Your task to perform on an android device: Do I have any events today? Image 0: 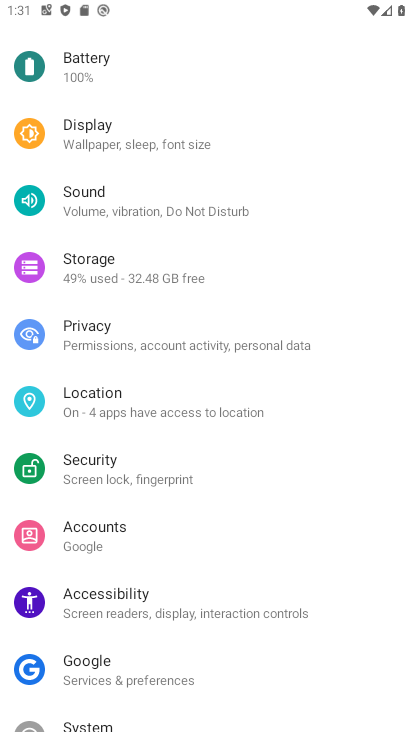
Step 0: press home button
Your task to perform on an android device: Do I have any events today? Image 1: 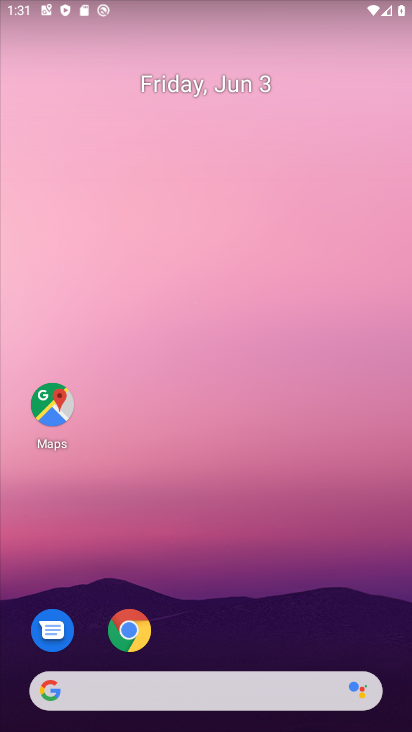
Step 1: drag from (238, 731) to (238, 140)
Your task to perform on an android device: Do I have any events today? Image 2: 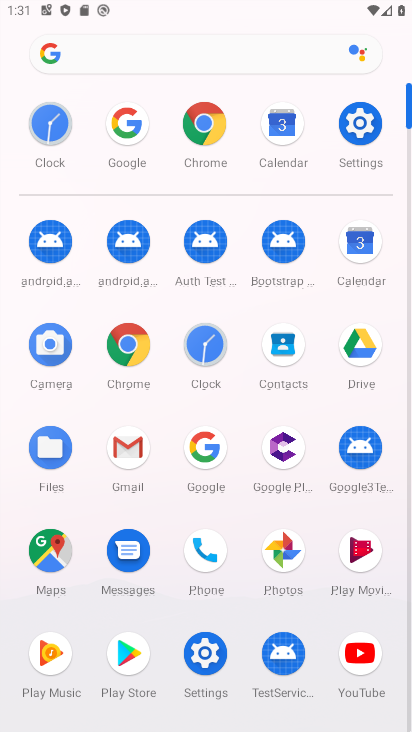
Step 2: click (354, 245)
Your task to perform on an android device: Do I have any events today? Image 3: 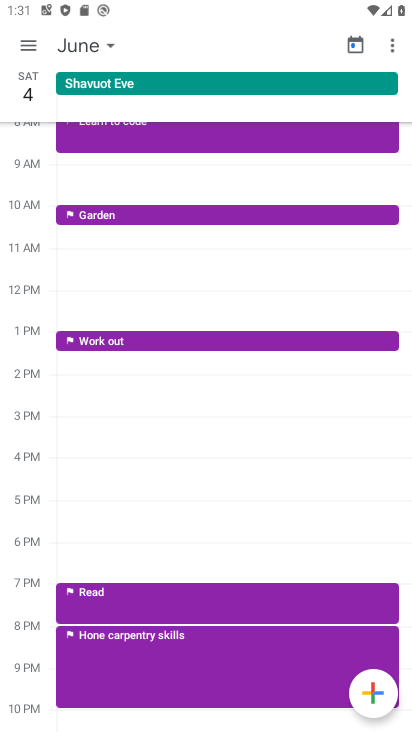
Step 3: click (117, 51)
Your task to perform on an android device: Do I have any events today? Image 4: 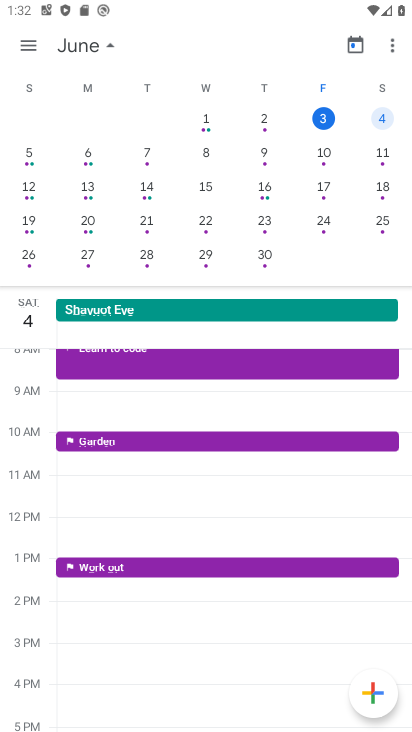
Step 4: click (327, 114)
Your task to perform on an android device: Do I have any events today? Image 5: 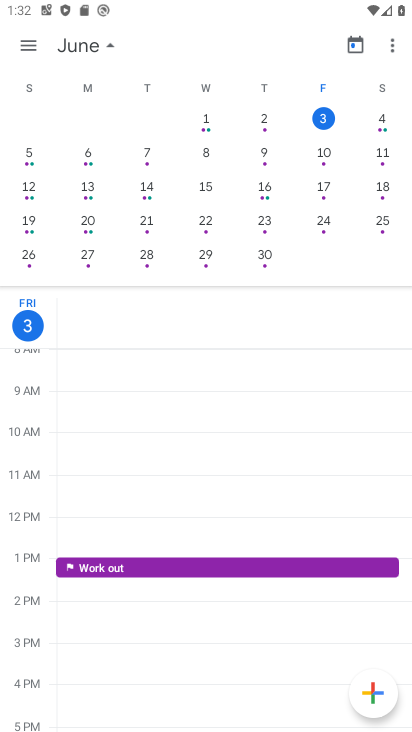
Step 5: click (34, 44)
Your task to perform on an android device: Do I have any events today? Image 6: 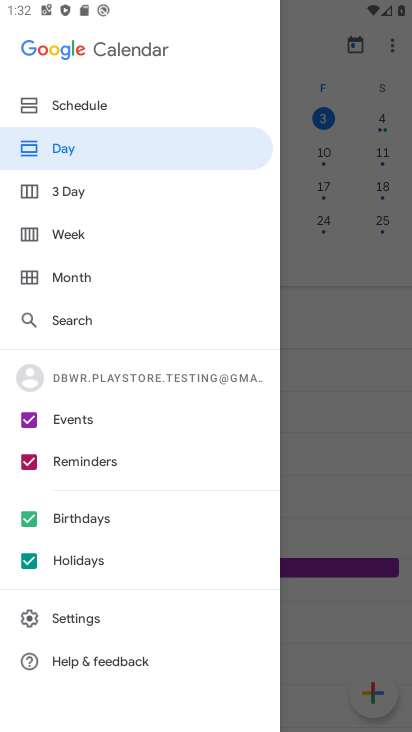
Step 6: click (26, 559)
Your task to perform on an android device: Do I have any events today? Image 7: 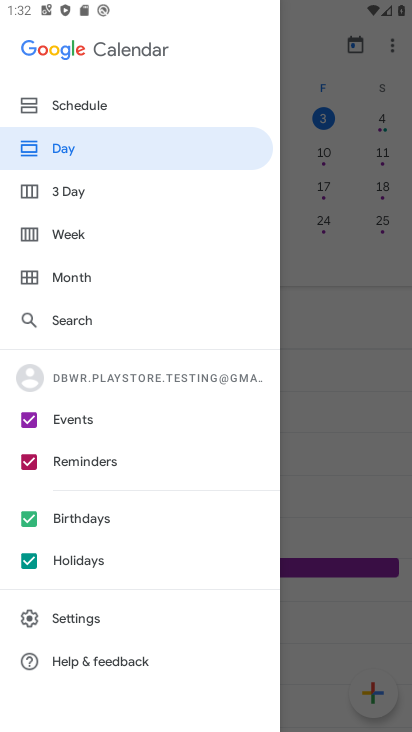
Step 7: click (35, 514)
Your task to perform on an android device: Do I have any events today? Image 8: 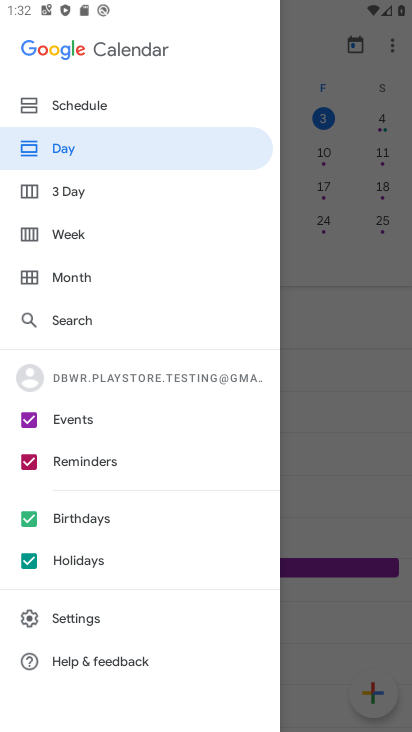
Step 8: click (27, 460)
Your task to perform on an android device: Do I have any events today? Image 9: 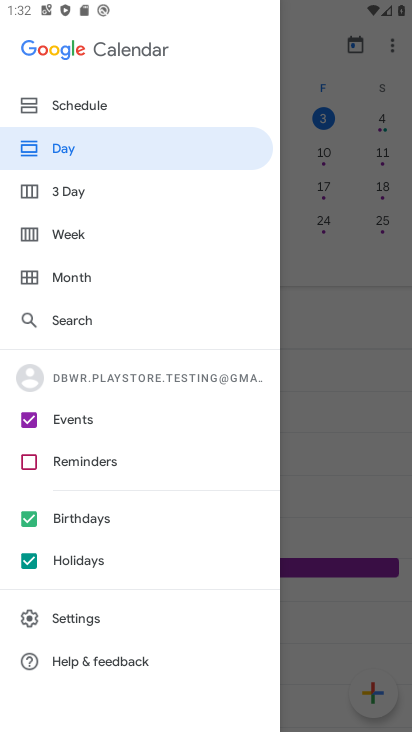
Step 9: click (25, 518)
Your task to perform on an android device: Do I have any events today? Image 10: 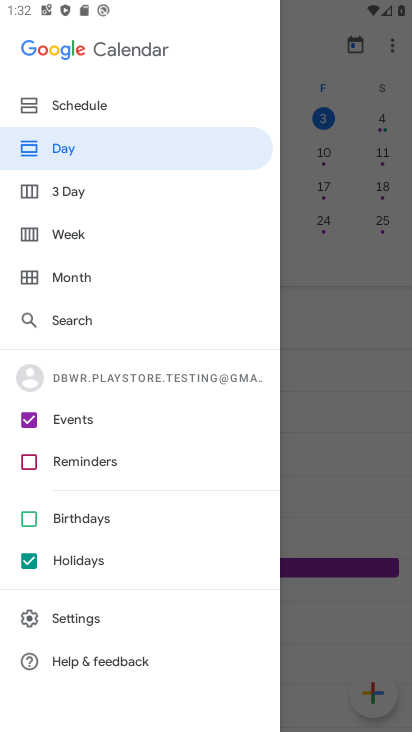
Step 10: click (29, 561)
Your task to perform on an android device: Do I have any events today? Image 11: 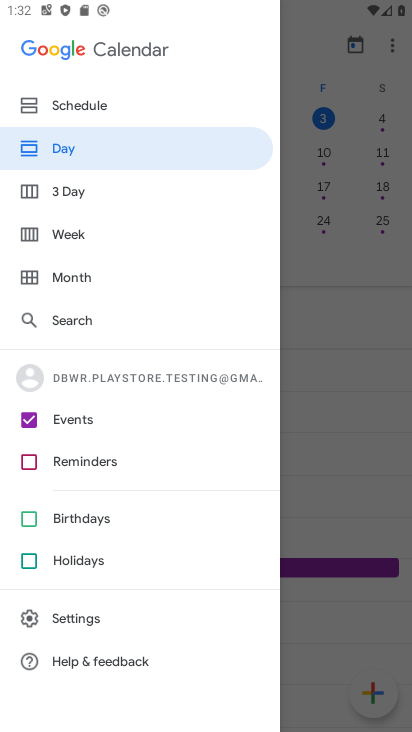
Step 11: click (319, 117)
Your task to perform on an android device: Do I have any events today? Image 12: 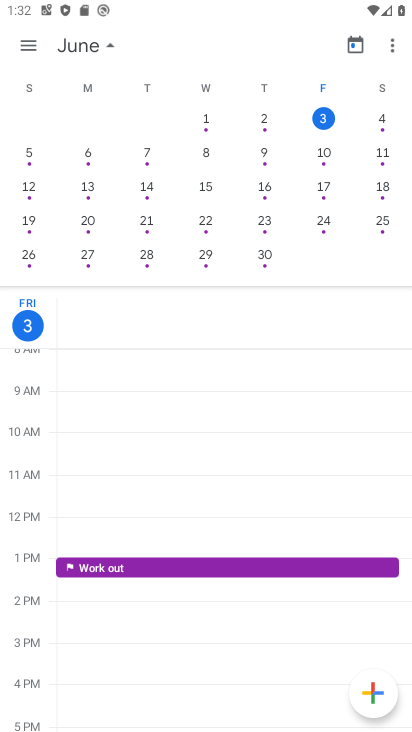
Step 12: click (320, 117)
Your task to perform on an android device: Do I have any events today? Image 13: 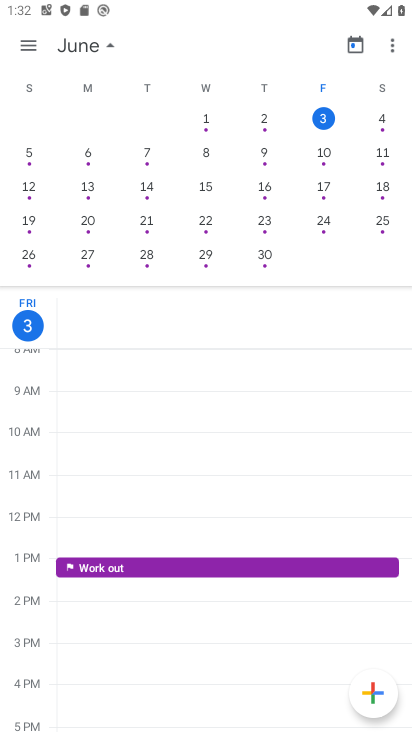
Step 13: click (111, 45)
Your task to perform on an android device: Do I have any events today? Image 14: 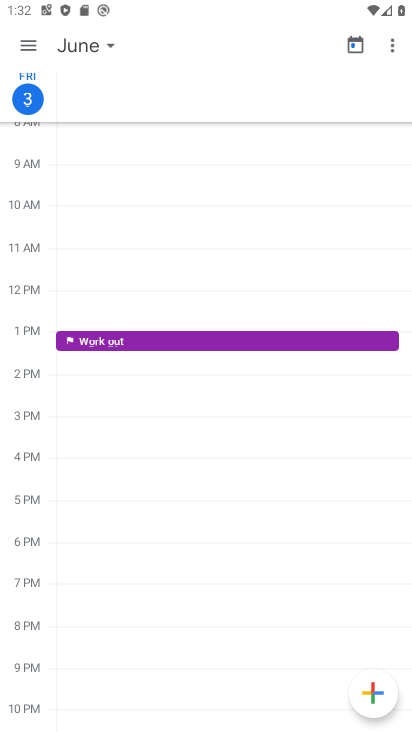
Step 14: task complete